Your task to perform on an android device: Open the calendar app, open the side menu, and click the "Day" option Image 0: 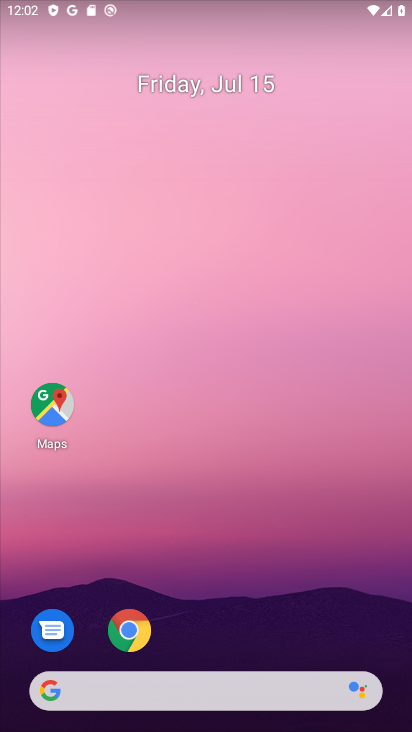
Step 0: drag from (254, 621) to (255, 103)
Your task to perform on an android device: Open the calendar app, open the side menu, and click the "Day" option Image 1: 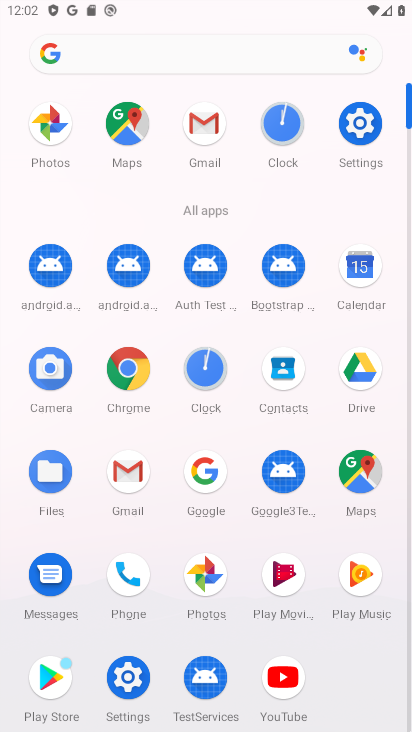
Step 1: click (346, 275)
Your task to perform on an android device: Open the calendar app, open the side menu, and click the "Day" option Image 2: 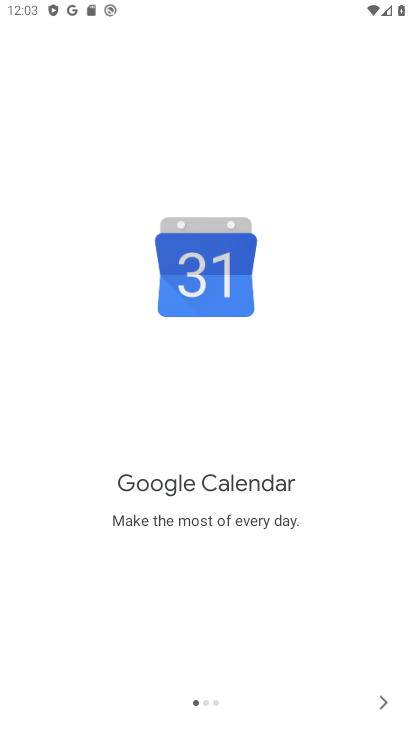
Step 2: click (384, 707)
Your task to perform on an android device: Open the calendar app, open the side menu, and click the "Day" option Image 3: 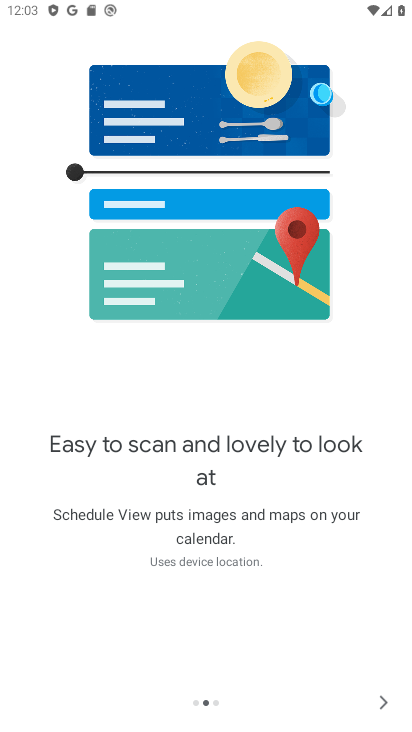
Step 3: click (384, 707)
Your task to perform on an android device: Open the calendar app, open the side menu, and click the "Day" option Image 4: 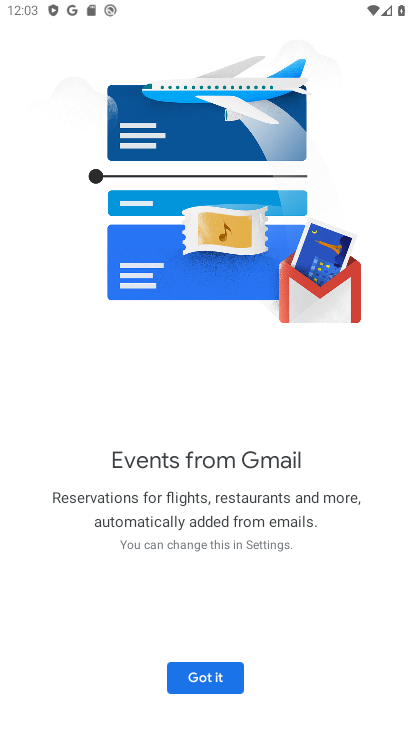
Step 4: click (384, 707)
Your task to perform on an android device: Open the calendar app, open the side menu, and click the "Day" option Image 5: 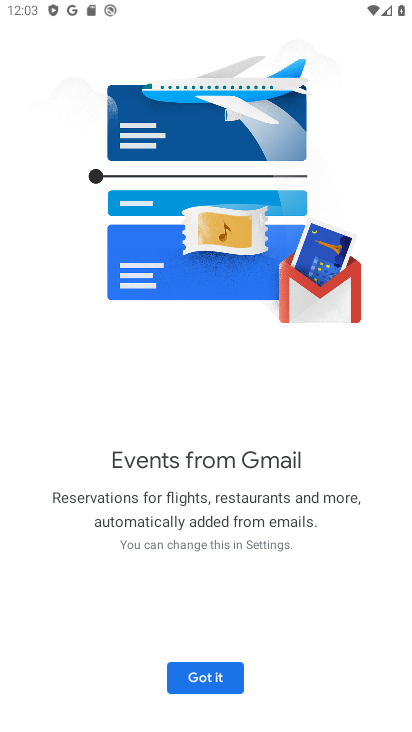
Step 5: click (228, 680)
Your task to perform on an android device: Open the calendar app, open the side menu, and click the "Day" option Image 6: 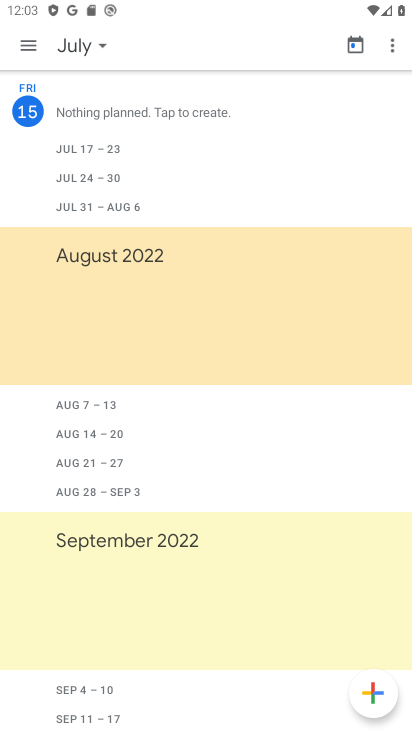
Step 6: click (34, 53)
Your task to perform on an android device: Open the calendar app, open the side menu, and click the "Day" option Image 7: 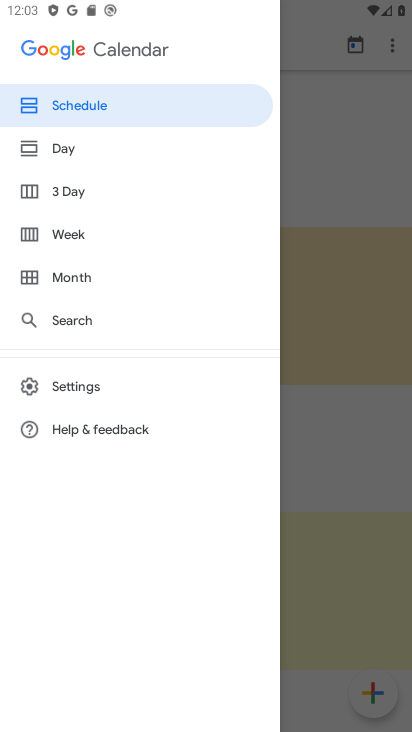
Step 7: click (78, 160)
Your task to perform on an android device: Open the calendar app, open the side menu, and click the "Day" option Image 8: 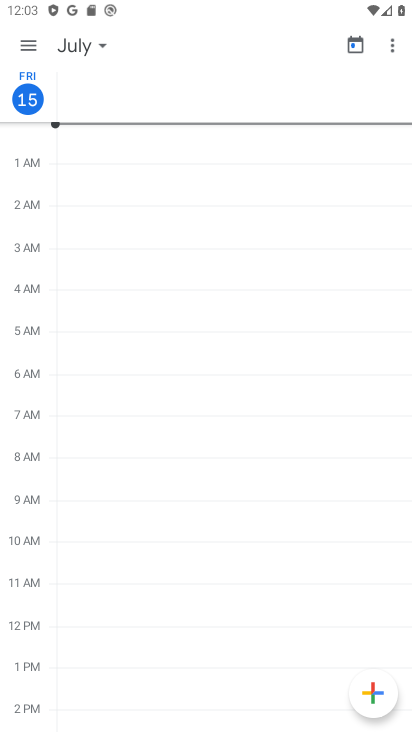
Step 8: task complete